Your task to perform on an android device: check battery use Image 0: 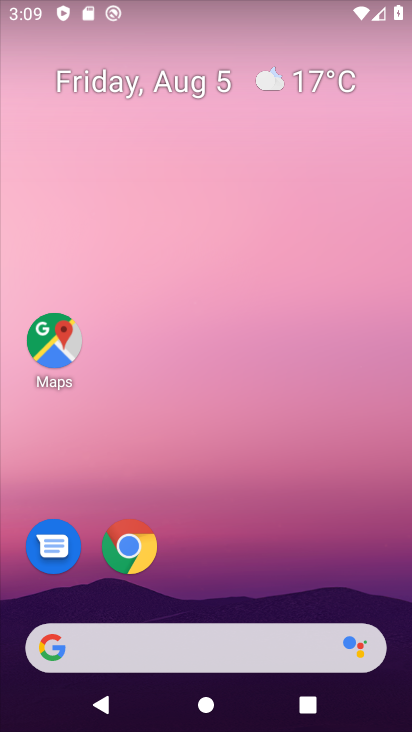
Step 0: press home button
Your task to perform on an android device: check battery use Image 1: 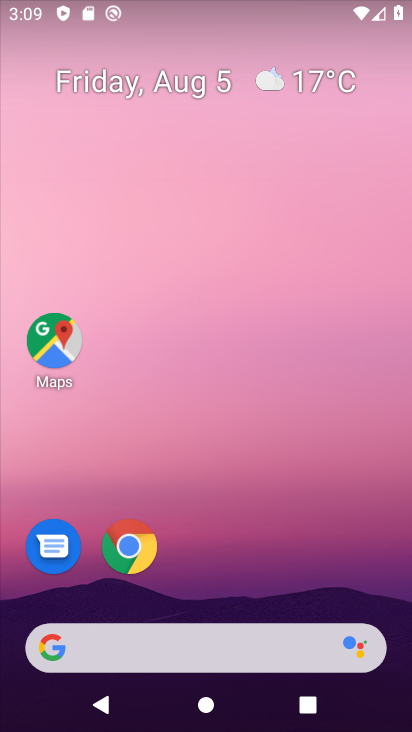
Step 1: drag from (354, 587) to (364, 213)
Your task to perform on an android device: check battery use Image 2: 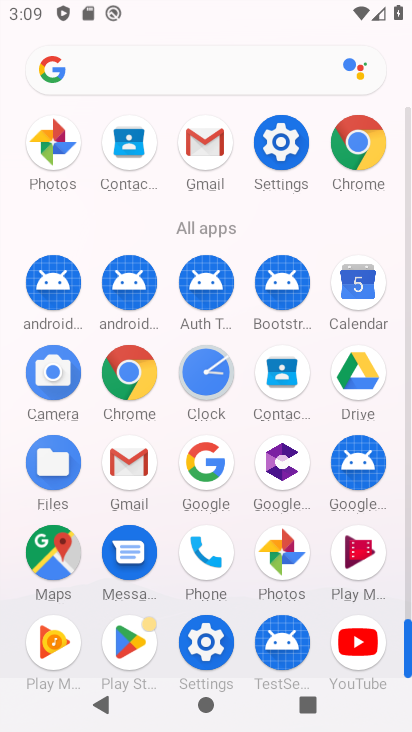
Step 2: click (283, 147)
Your task to perform on an android device: check battery use Image 3: 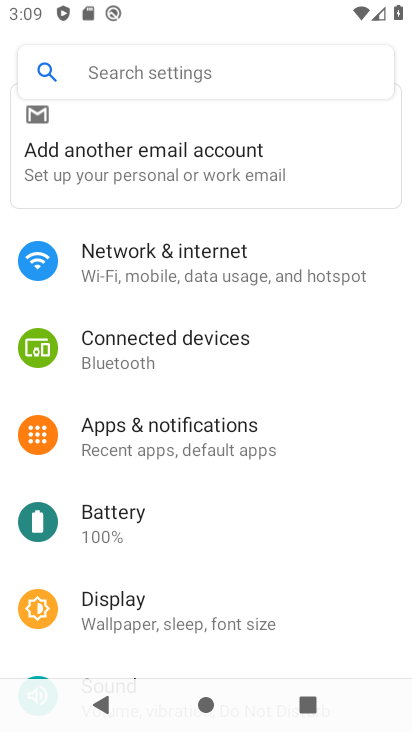
Step 3: drag from (345, 399) to (348, 327)
Your task to perform on an android device: check battery use Image 4: 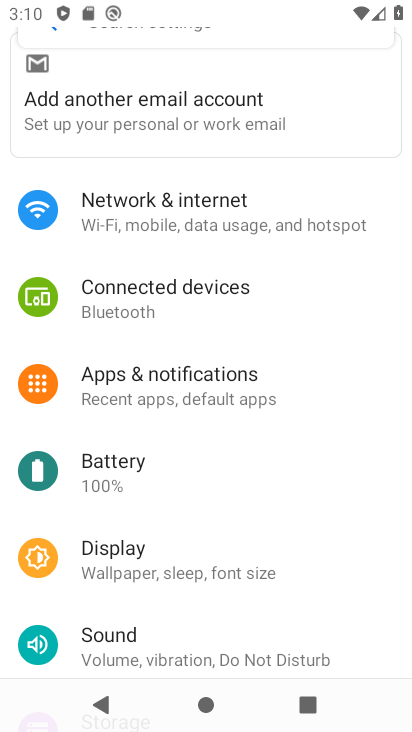
Step 4: drag from (340, 393) to (350, 329)
Your task to perform on an android device: check battery use Image 5: 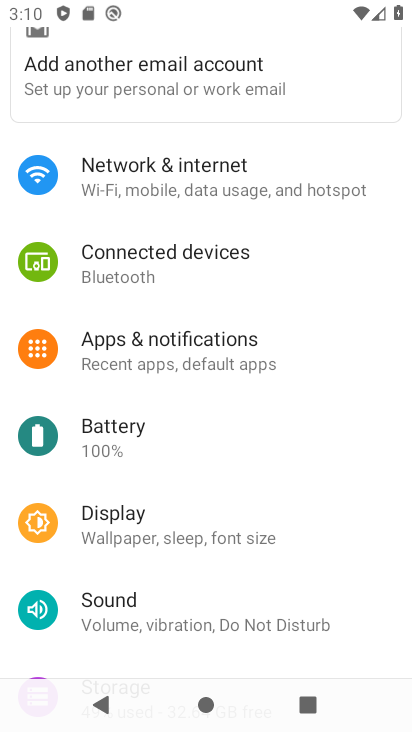
Step 5: drag from (353, 400) to (356, 318)
Your task to perform on an android device: check battery use Image 6: 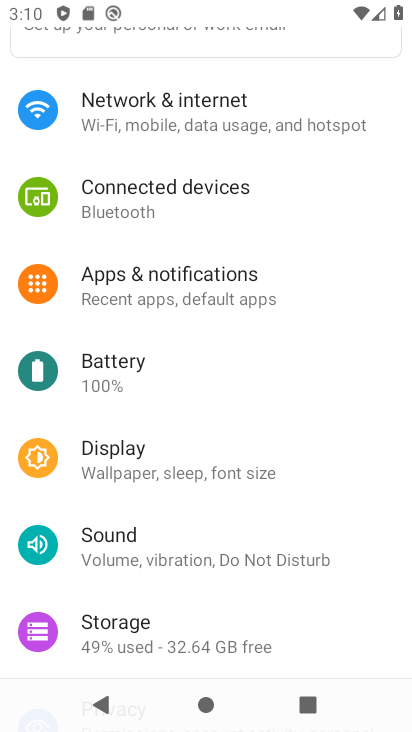
Step 6: drag from (336, 410) to (332, 307)
Your task to perform on an android device: check battery use Image 7: 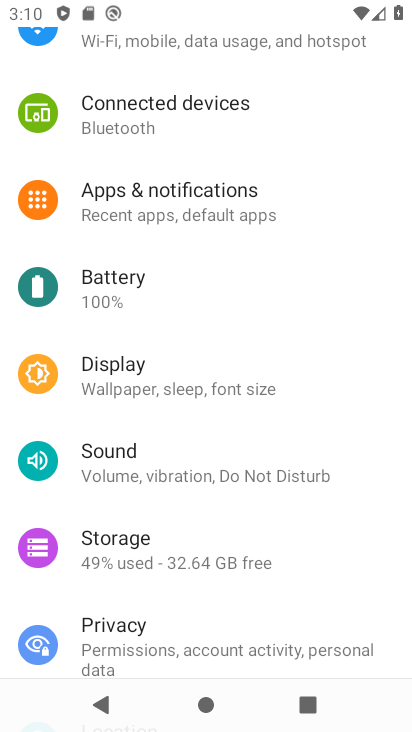
Step 7: drag from (362, 412) to (361, 285)
Your task to perform on an android device: check battery use Image 8: 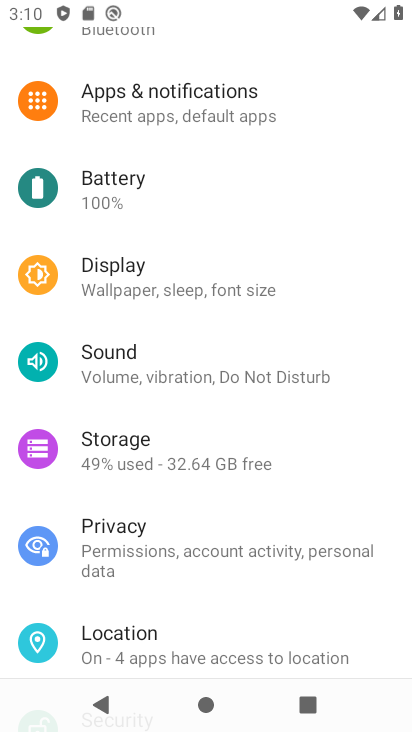
Step 8: click (213, 204)
Your task to perform on an android device: check battery use Image 9: 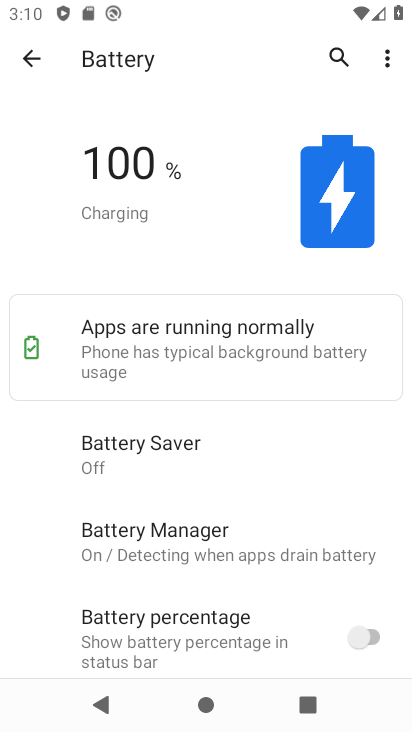
Step 9: click (387, 60)
Your task to perform on an android device: check battery use Image 10: 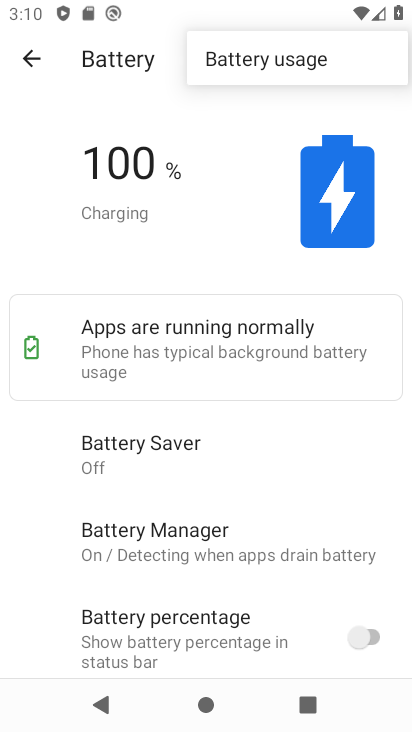
Step 10: click (294, 61)
Your task to perform on an android device: check battery use Image 11: 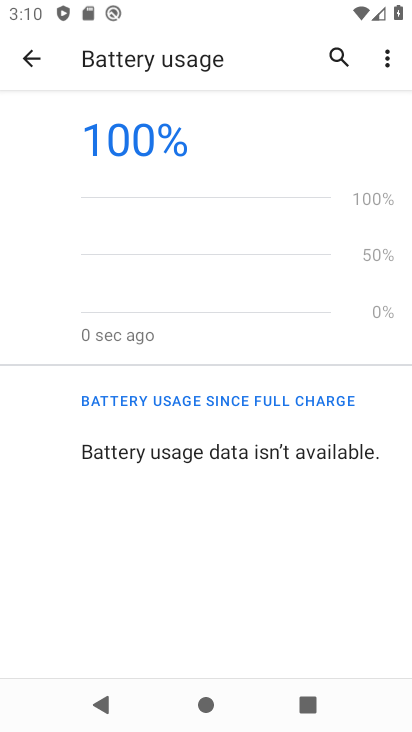
Step 11: task complete